Your task to perform on an android device: Go to Reddit.com Image 0: 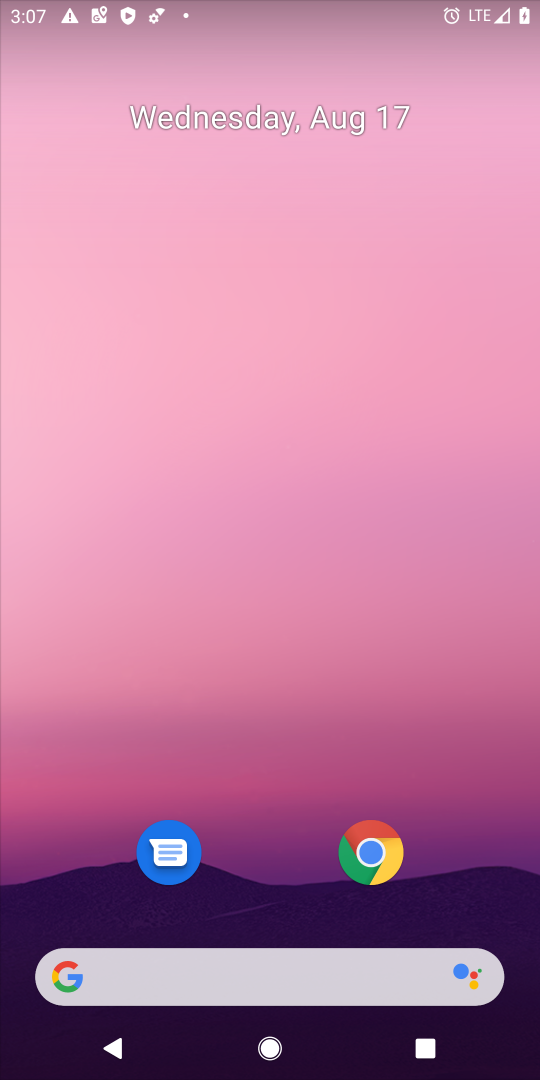
Step 0: drag from (245, 567) to (279, 5)
Your task to perform on an android device: Go to Reddit.com Image 1: 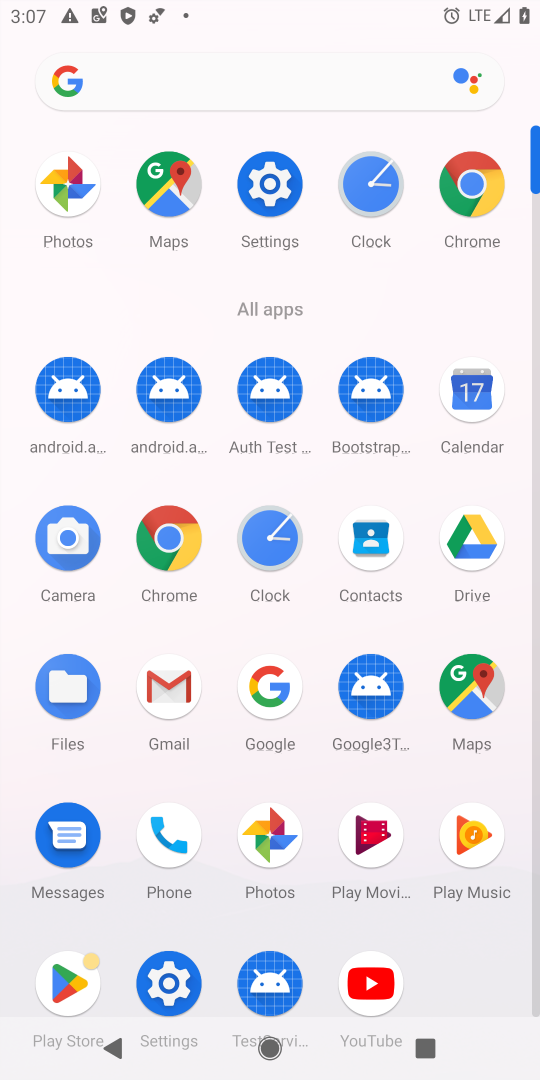
Step 1: click (167, 539)
Your task to perform on an android device: Go to Reddit.com Image 2: 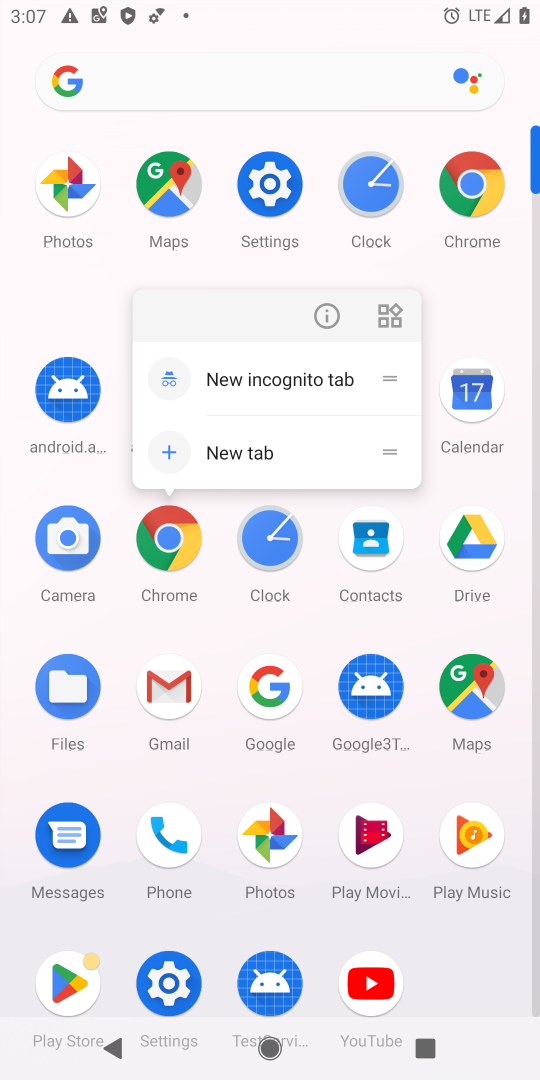
Step 2: click (166, 539)
Your task to perform on an android device: Go to Reddit.com Image 3: 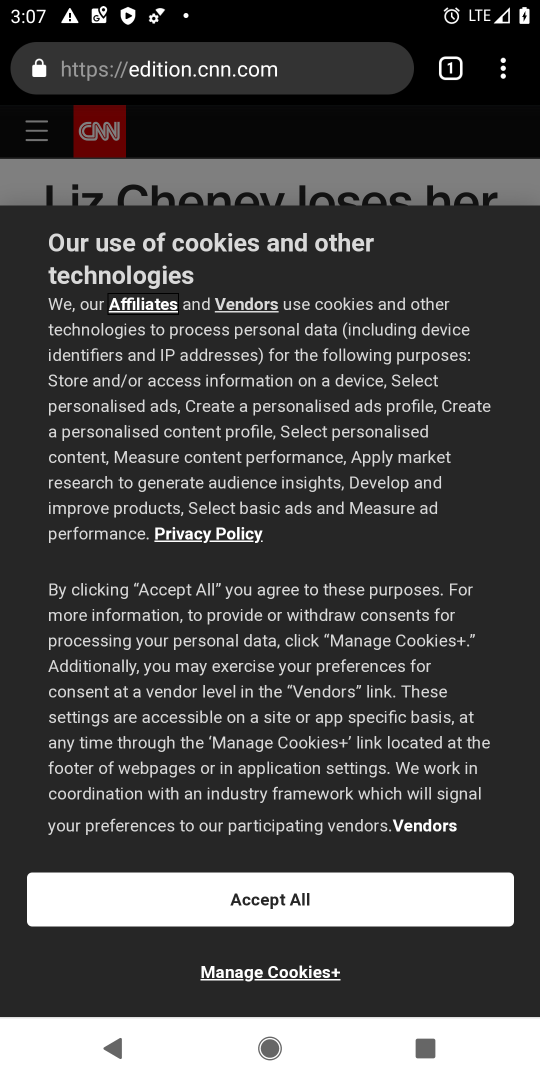
Step 3: click (338, 66)
Your task to perform on an android device: Go to Reddit.com Image 4: 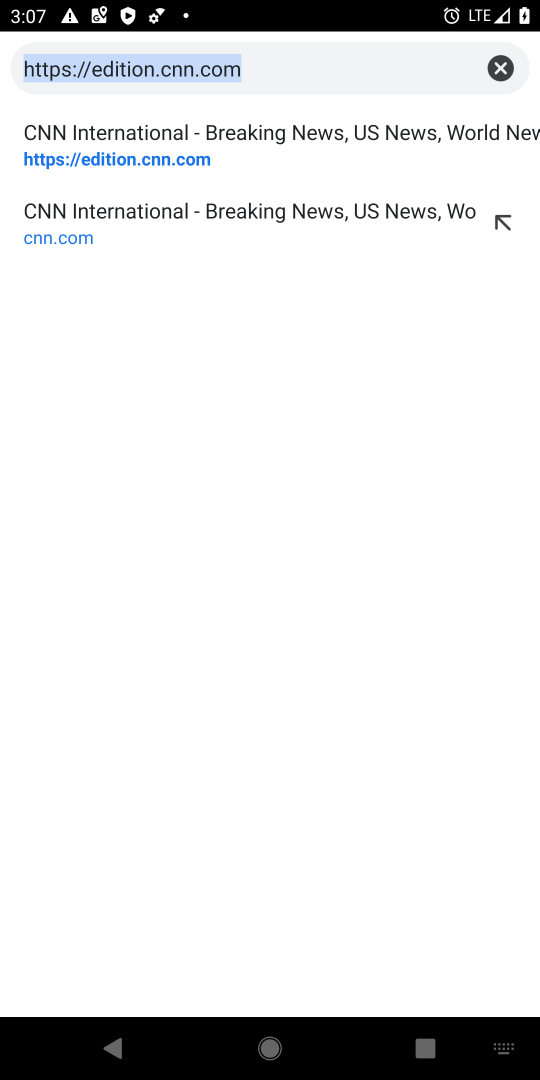
Step 4: click (494, 72)
Your task to perform on an android device: Go to Reddit.com Image 5: 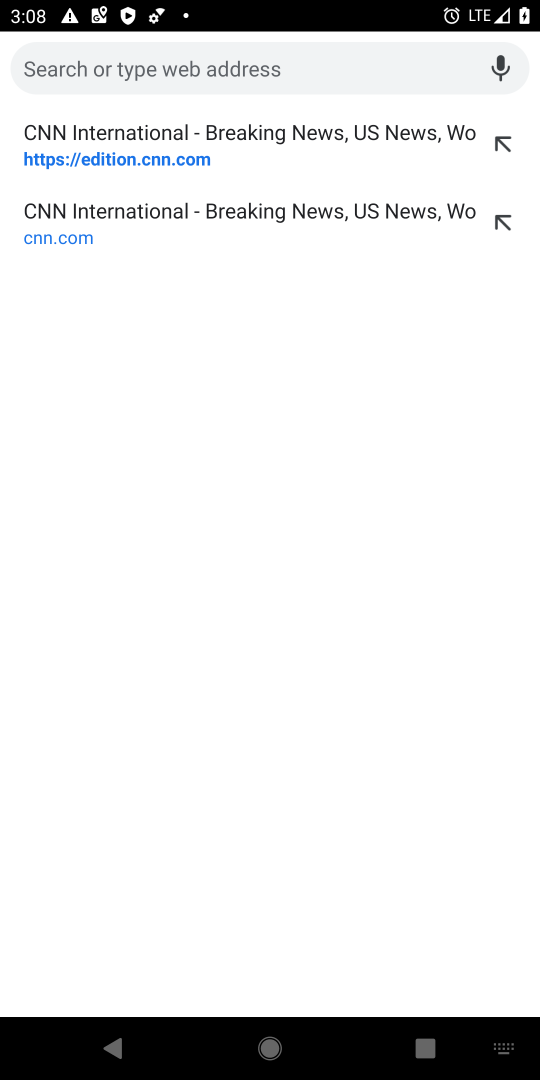
Step 5: type "reddit.com"
Your task to perform on an android device: Go to Reddit.com Image 6: 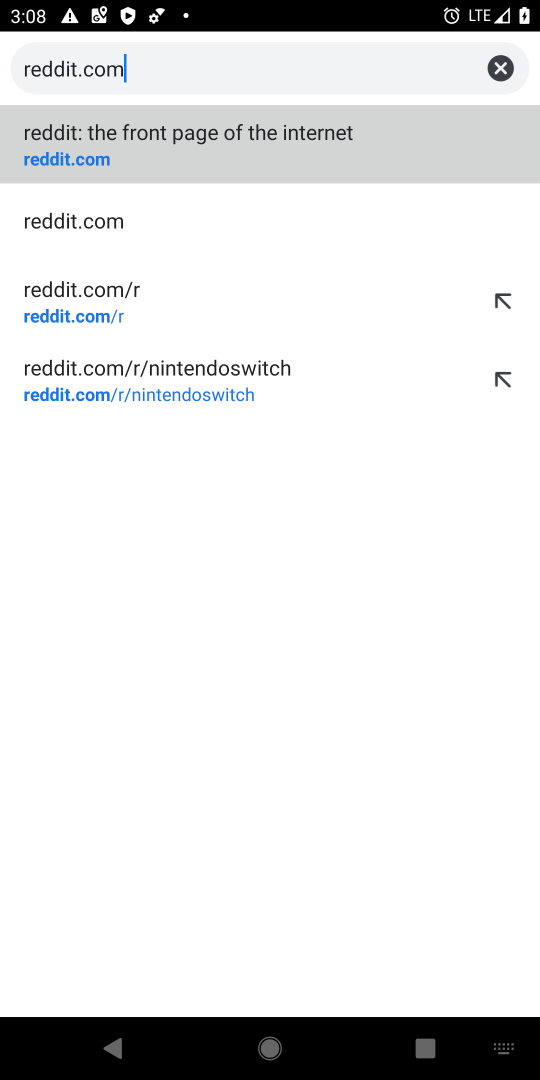
Step 6: click (86, 153)
Your task to perform on an android device: Go to Reddit.com Image 7: 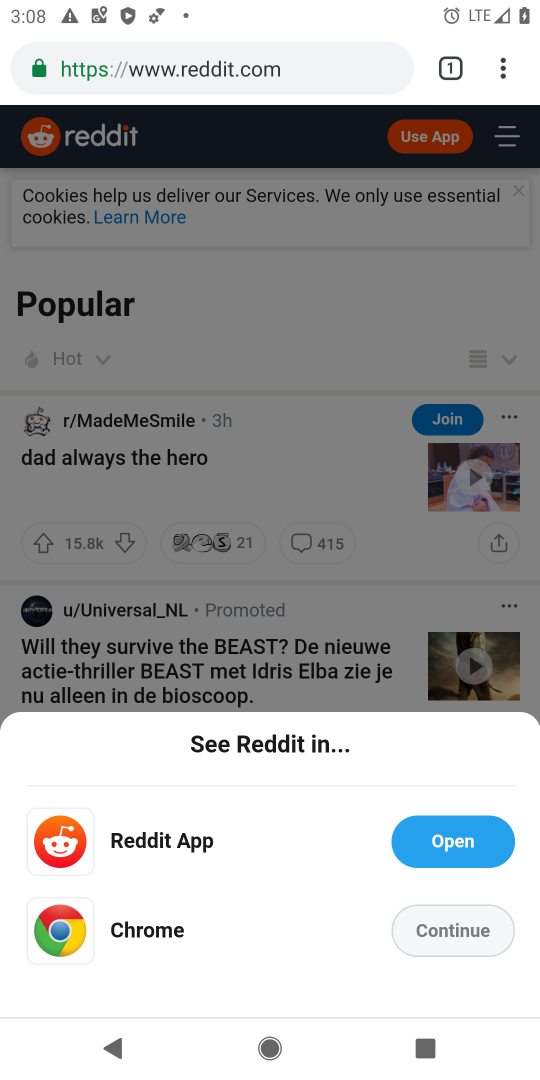
Step 7: task complete